Your task to perform on an android device: Open Yahoo.com Image 0: 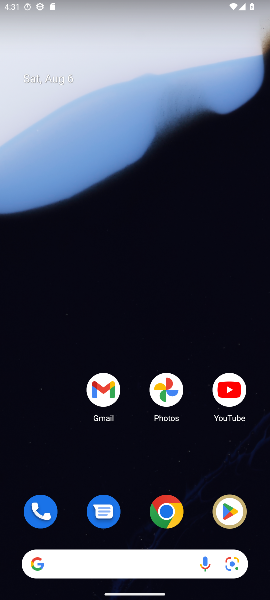
Step 0: click (159, 514)
Your task to perform on an android device: Open Yahoo.com Image 1: 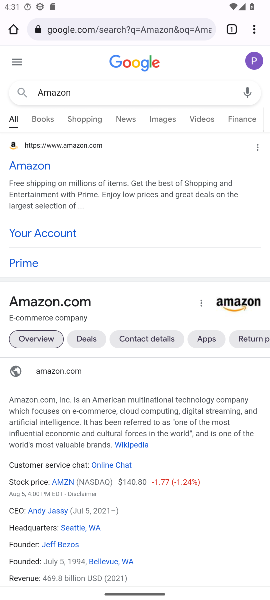
Step 1: click (113, 29)
Your task to perform on an android device: Open Yahoo.com Image 2: 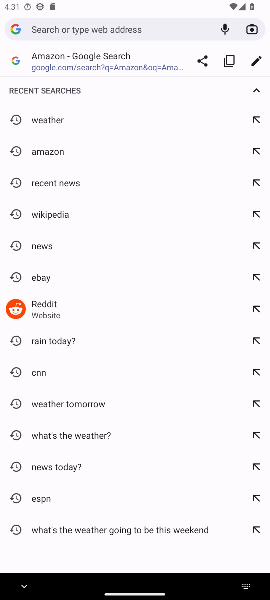
Step 2: type "yahoo.com"
Your task to perform on an android device: Open Yahoo.com Image 3: 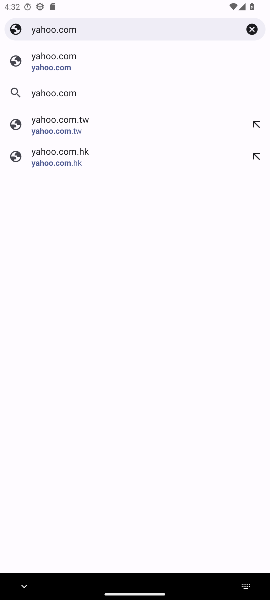
Step 3: click (34, 69)
Your task to perform on an android device: Open Yahoo.com Image 4: 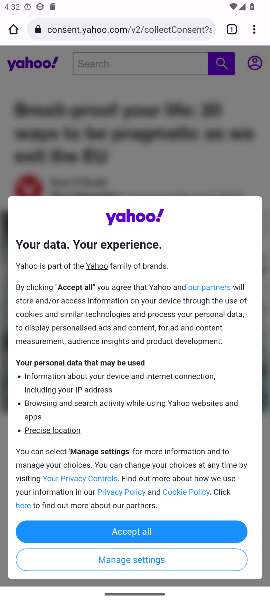
Step 4: task complete